Your task to perform on an android device: Search for sushi restaurants on Maps Image 0: 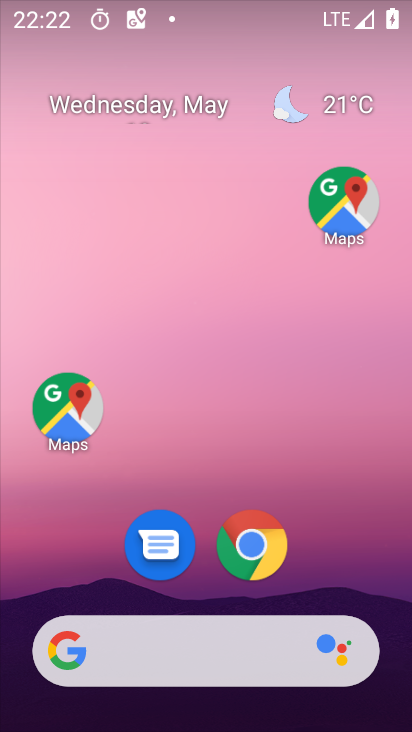
Step 0: click (69, 419)
Your task to perform on an android device: Search for sushi restaurants on Maps Image 1: 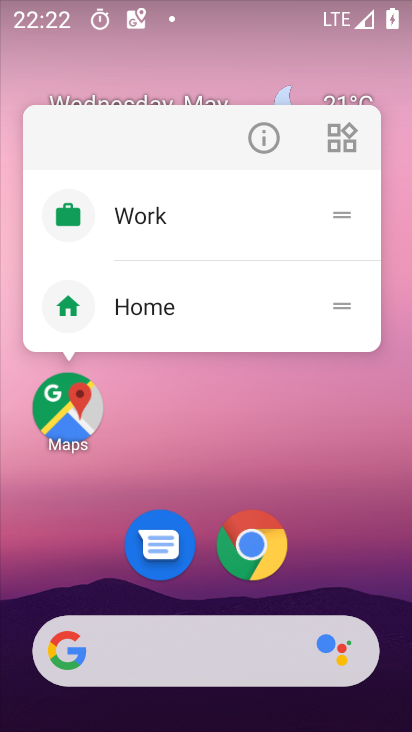
Step 1: click (69, 417)
Your task to perform on an android device: Search for sushi restaurants on Maps Image 2: 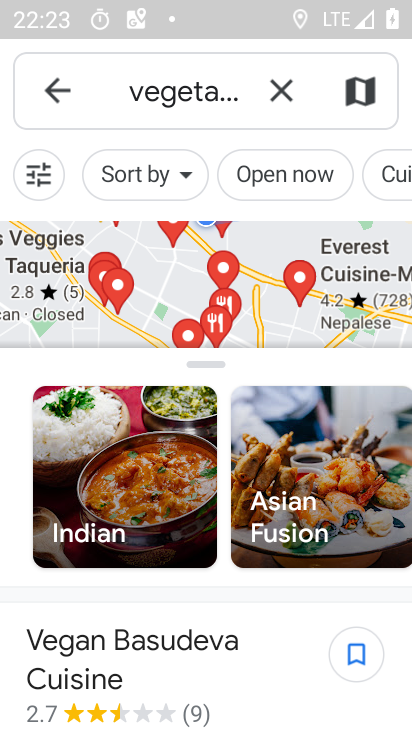
Step 2: click (290, 84)
Your task to perform on an android device: Search for sushi restaurants on Maps Image 3: 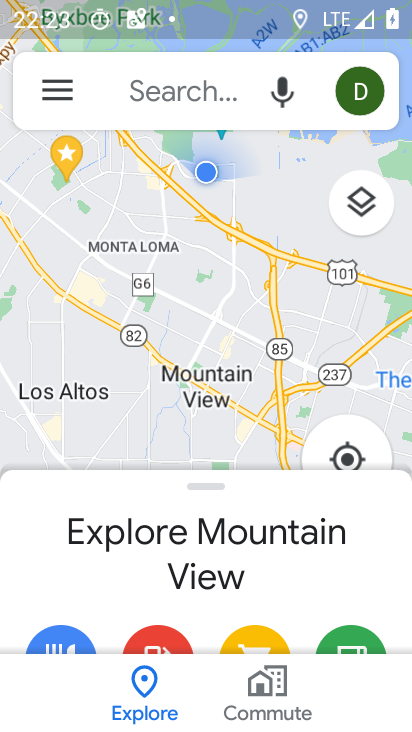
Step 3: click (154, 106)
Your task to perform on an android device: Search for sushi restaurants on Maps Image 4: 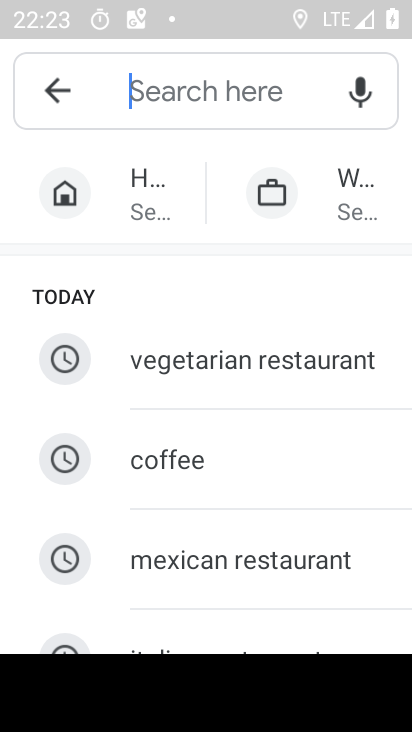
Step 4: type "sushi restaurants"
Your task to perform on an android device: Search for sushi restaurants on Maps Image 5: 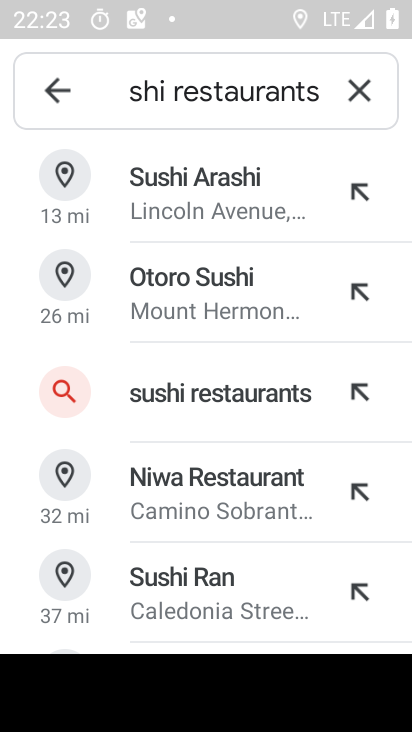
Step 5: click (167, 401)
Your task to perform on an android device: Search for sushi restaurants on Maps Image 6: 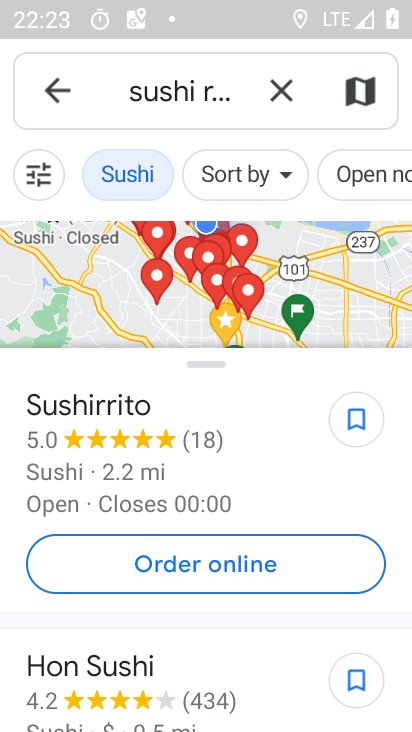
Step 6: task complete